Your task to perform on an android device: Open calendar and show me the second week of next month Image 0: 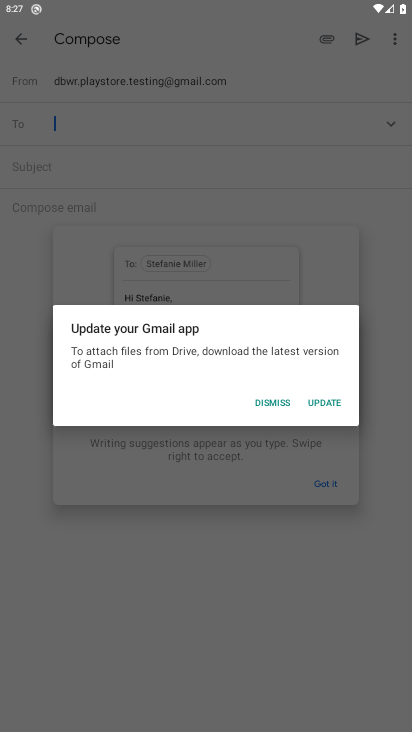
Step 0: press home button
Your task to perform on an android device: Open calendar and show me the second week of next month Image 1: 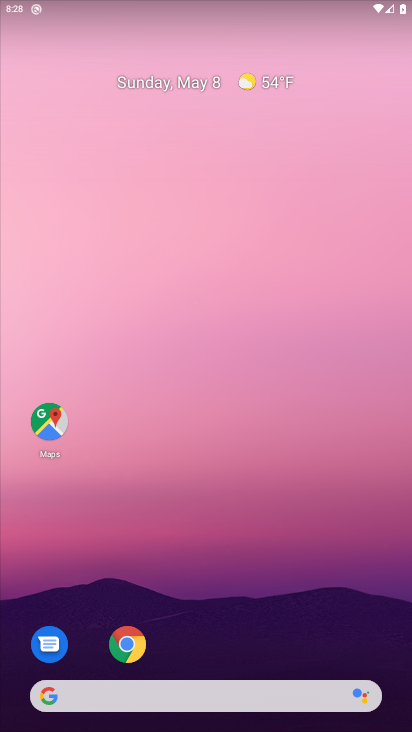
Step 1: drag from (205, 686) to (268, 317)
Your task to perform on an android device: Open calendar and show me the second week of next month Image 2: 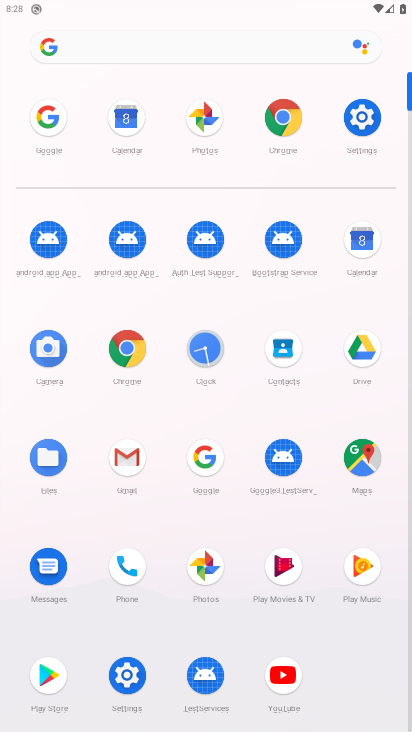
Step 2: click (350, 238)
Your task to perform on an android device: Open calendar and show me the second week of next month Image 3: 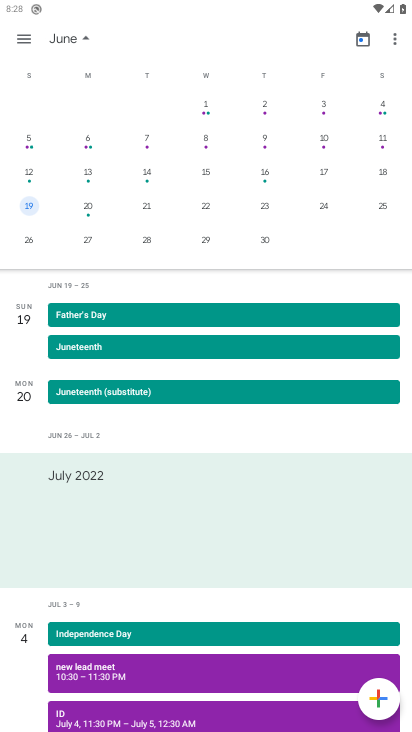
Step 3: click (33, 143)
Your task to perform on an android device: Open calendar and show me the second week of next month Image 4: 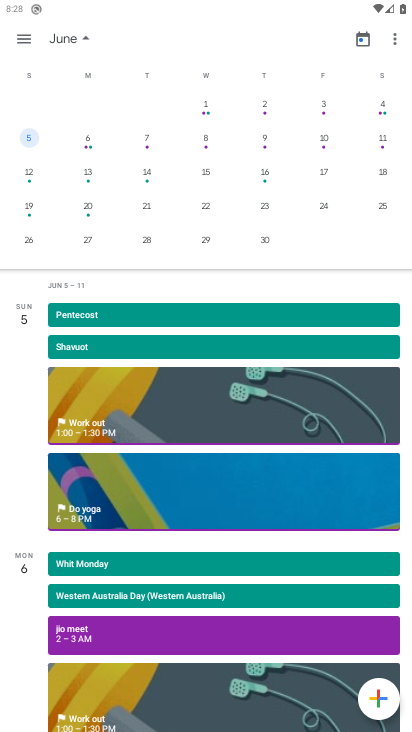
Step 4: task complete